Your task to perform on an android device: change text size in settings app Image 0: 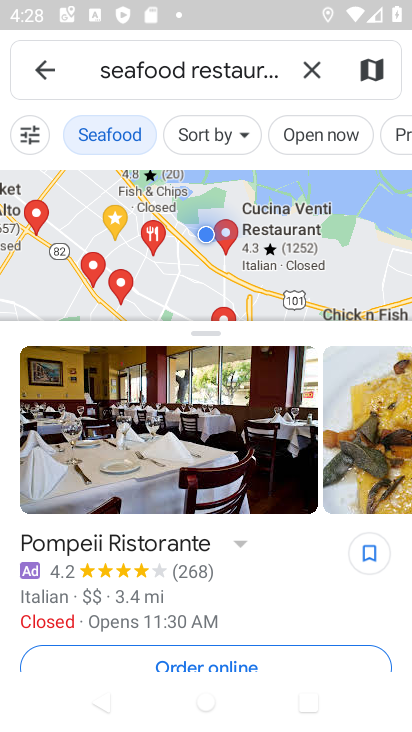
Step 0: press home button
Your task to perform on an android device: change text size in settings app Image 1: 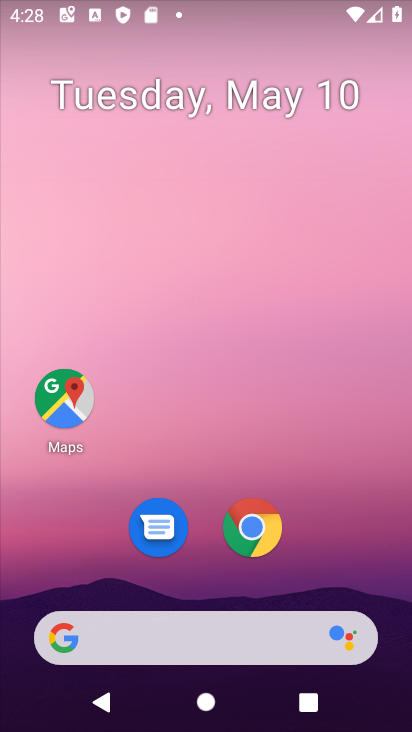
Step 1: drag from (337, 528) to (293, 41)
Your task to perform on an android device: change text size in settings app Image 2: 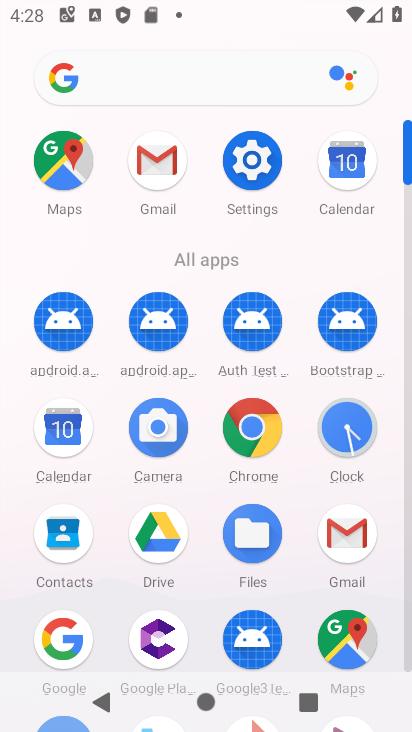
Step 2: click (255, 151)
Your task to perform on an android device: change text size in settings app Image 3: 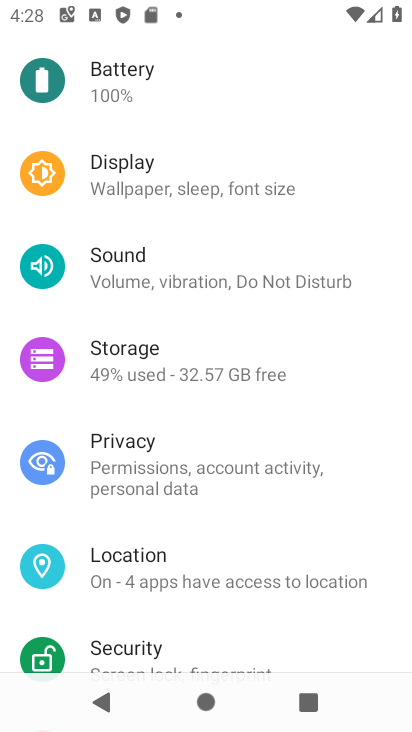
Step 3: click (257, 179)
Your task to perform on an android device: change text size in settings app Image 4: 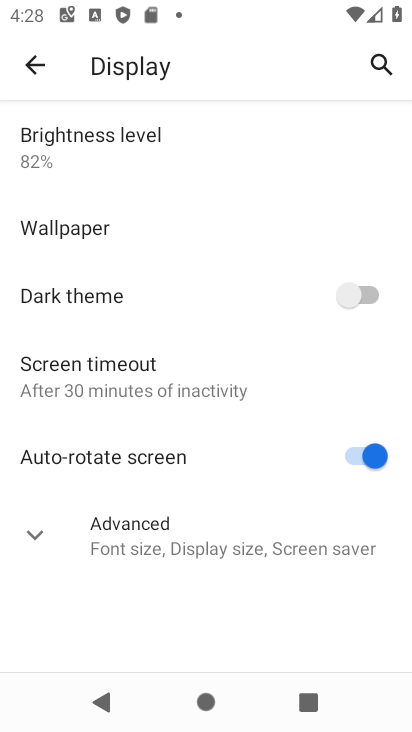
Step 4: click (35, 527)
Your task to perform on an android device: change text size in settings app Image 5: 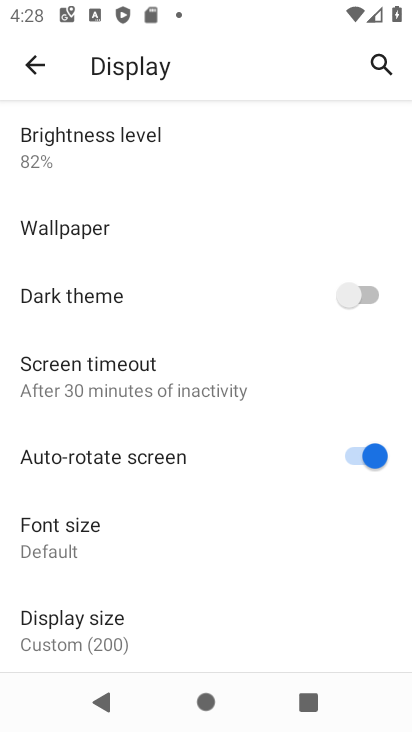
Step 5: click (99, 544)
Your task to perform on an android device: change text size in settings app Image 6: 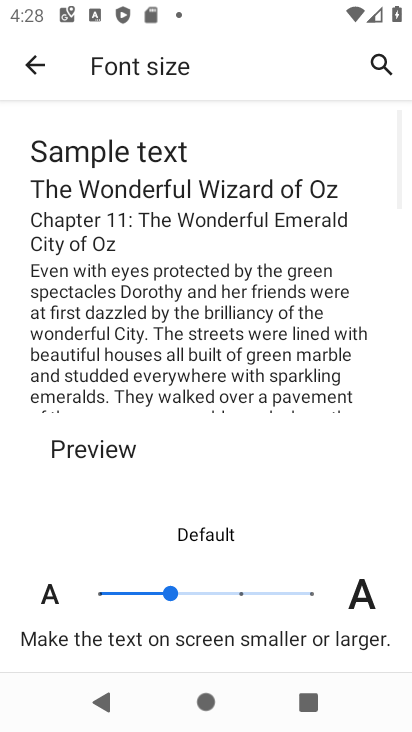
Step 6: click (102, 587)
Your task to perform on an android device: change text size in settings app Image 7: 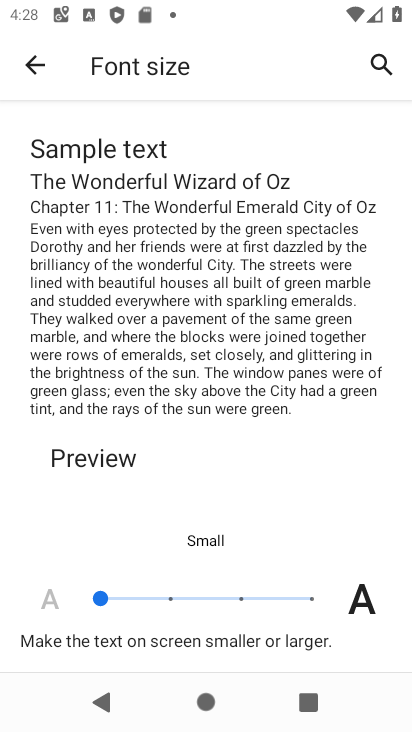
Step 7: click (35, 62)
Your task to perform on an android device: change text size in settings app Image 8: 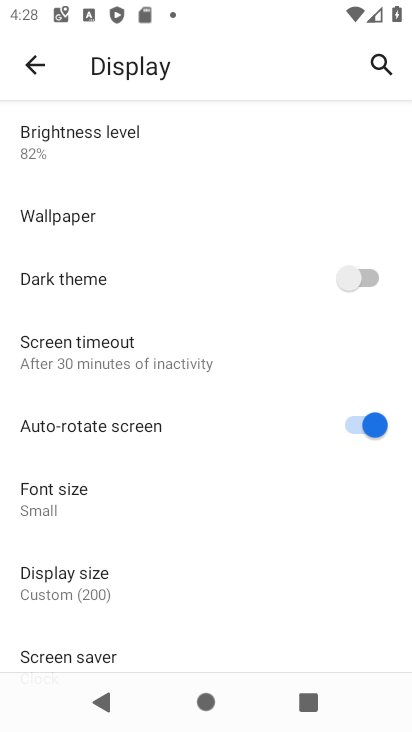
Step 8: task complete